Your task to perform on an android device: toggle sleep mode Image 0: 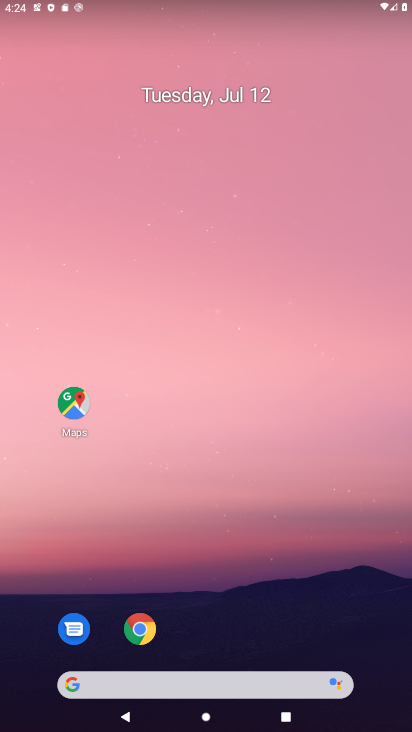
Step 0: drag from (221, 633) to (337, 2)
Your task to perform on an android device: toggle sleep mode Image 1: 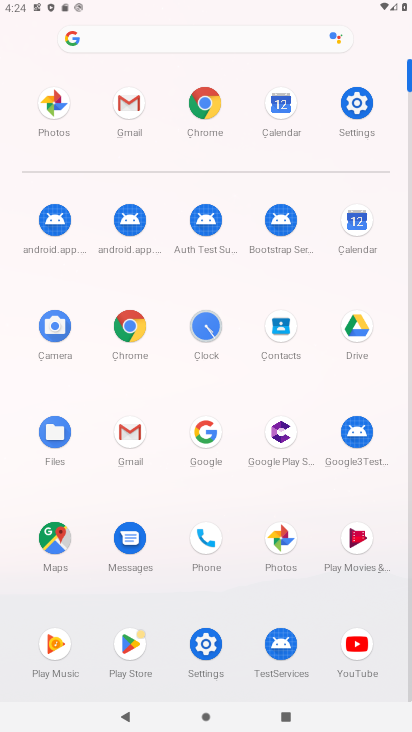
Step 1: click (361, 102)
Your task to perform on an android device: toggle sleep mode Image 2: 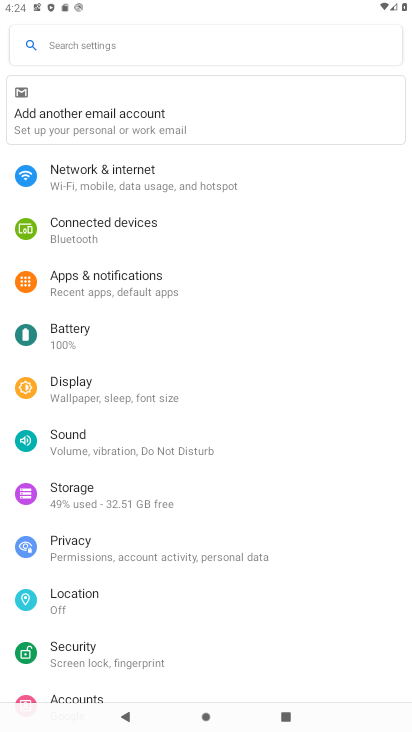
Step 2: click (68, 387)
Your task to perform on an android device: toggle sleep mode Image 3: 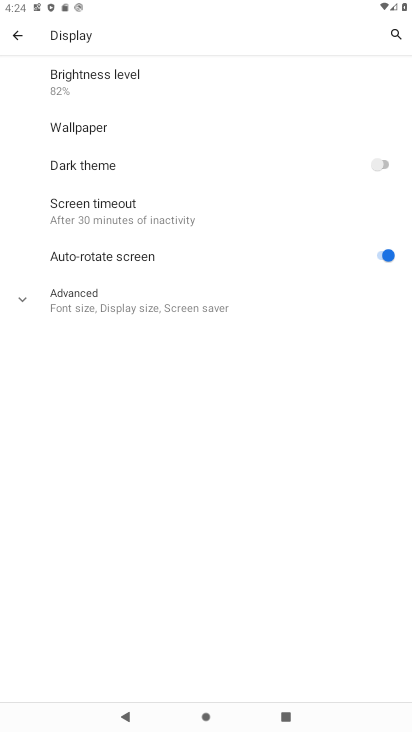
Step 3: task complete